Your task to perform on an android device: empty trash in the gmail app Image 0: 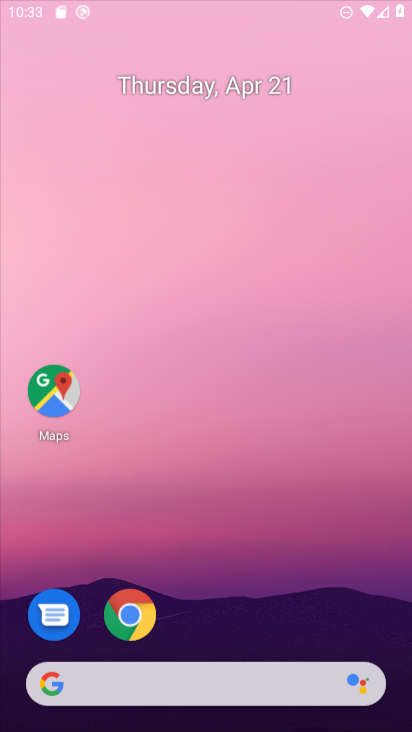
Step 0: drag from (221, 667) to (216, 150)
Your task to perform on an android device: empty trash in the gmail app Image 1: 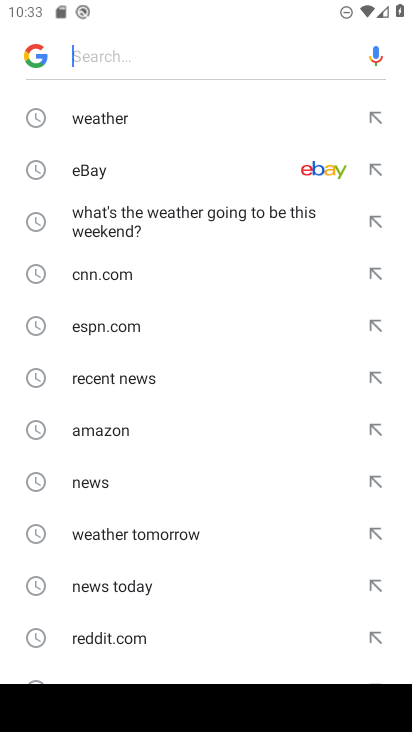
Step 1: press home button
Your task to perform on an android device: empty trash in the gmail app Image 2: 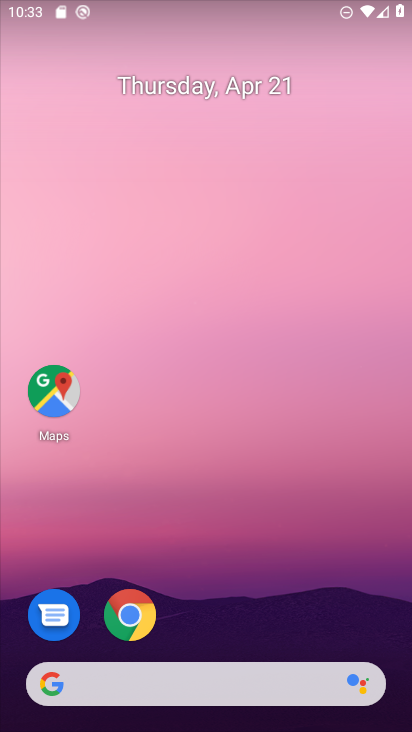
Step 2: drag from (232, 611) to (232, 151)
Your task to perform on an android device: empty trash in the gmail app Image 3: 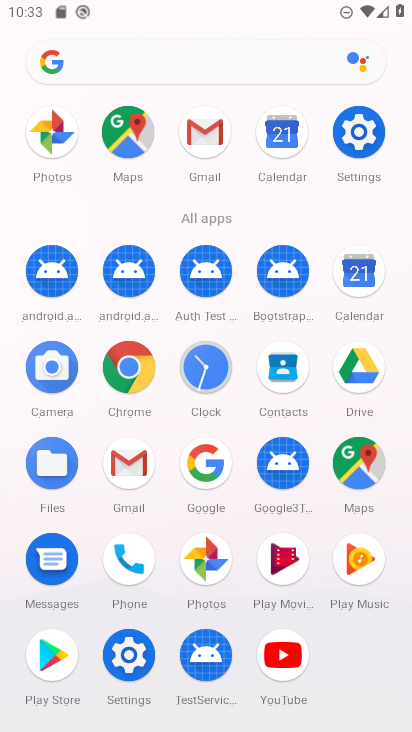
Step 3: click (128, 460)
Your task to perform on an android device: empty trash in the gmail app Image 4: 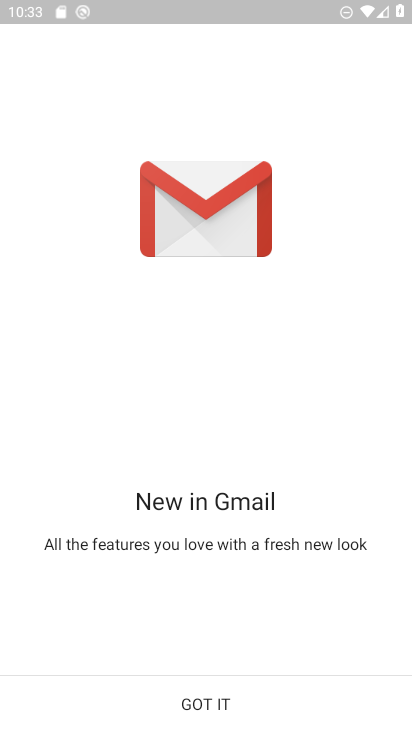
Step 4: click (204, 698)
Your task to perform on an android device: empty trash in the gmail app Image 5: 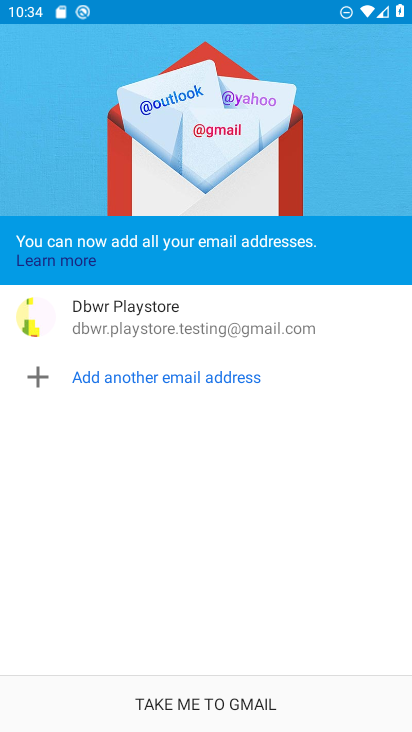
Step 5: click (189, 699)
Your task to perform on an android device: empty trash in the gmail app Image 6: 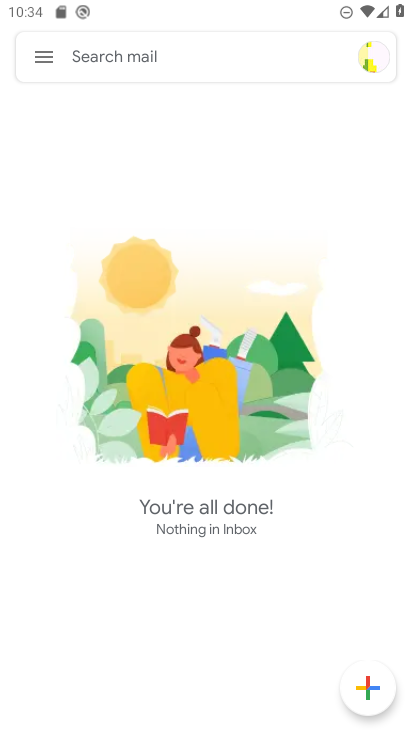
Step 6: click (40, 55)
Your task to perform on an android device: empty trash in the gmail app Image 7: 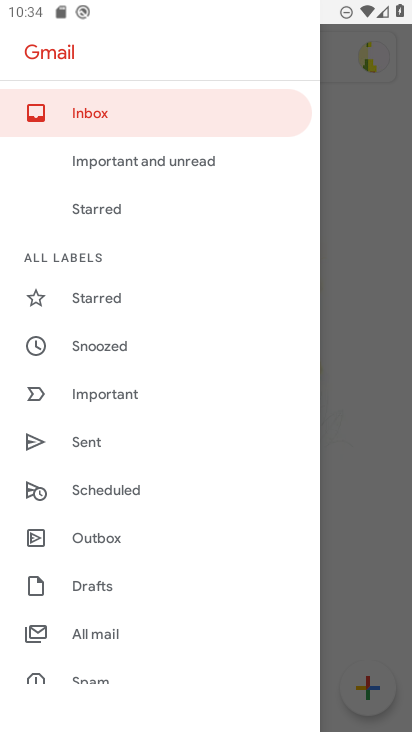
Step 7: drag from (127, 648) to (124, 300)
Your task to perform on an android device: empty trash in the gmail app Image 8: 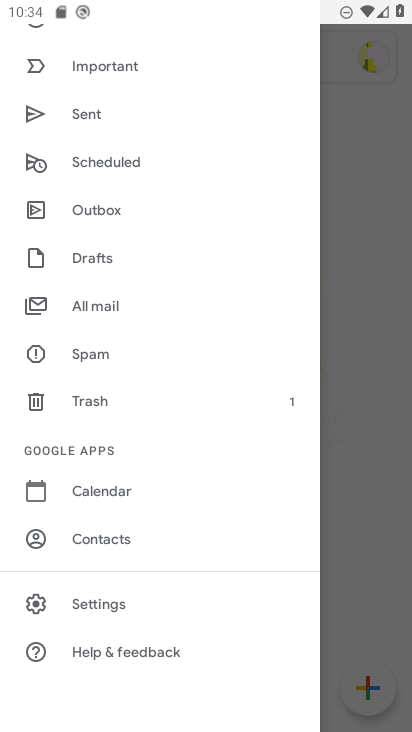
Step 8: click (86, 400)
Your task to perform on an android device: empty trash in the gmail app Image 9: 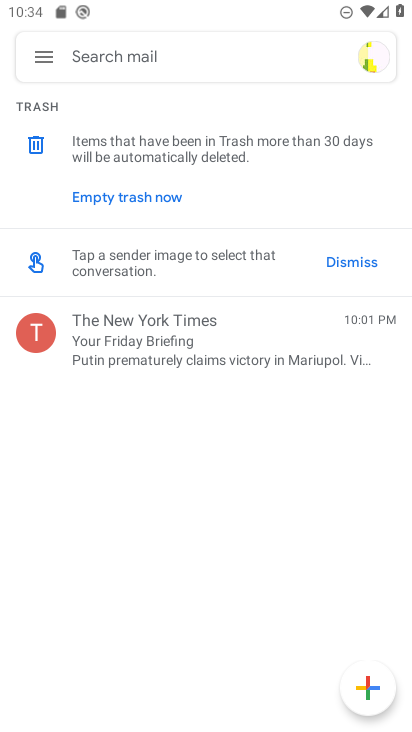
Step 9: click (103, 198)
Your task to perform on an android device: empty trash in the gmail app Image 10: 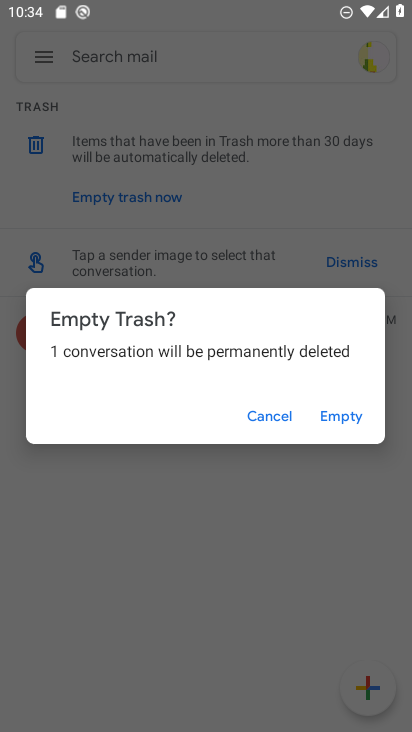
Step 10: click (339, 412)
Your task to perform on an android device: empty trash in the gmail app Image 11: 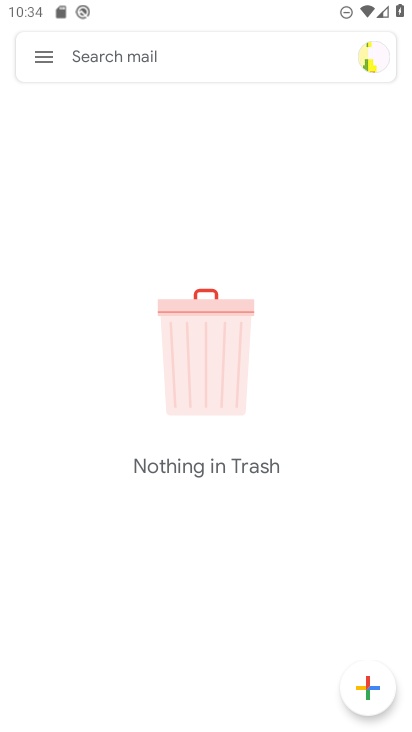
Step 11: task complete